Your task to perform on an android device: turn off wifi Image 0: 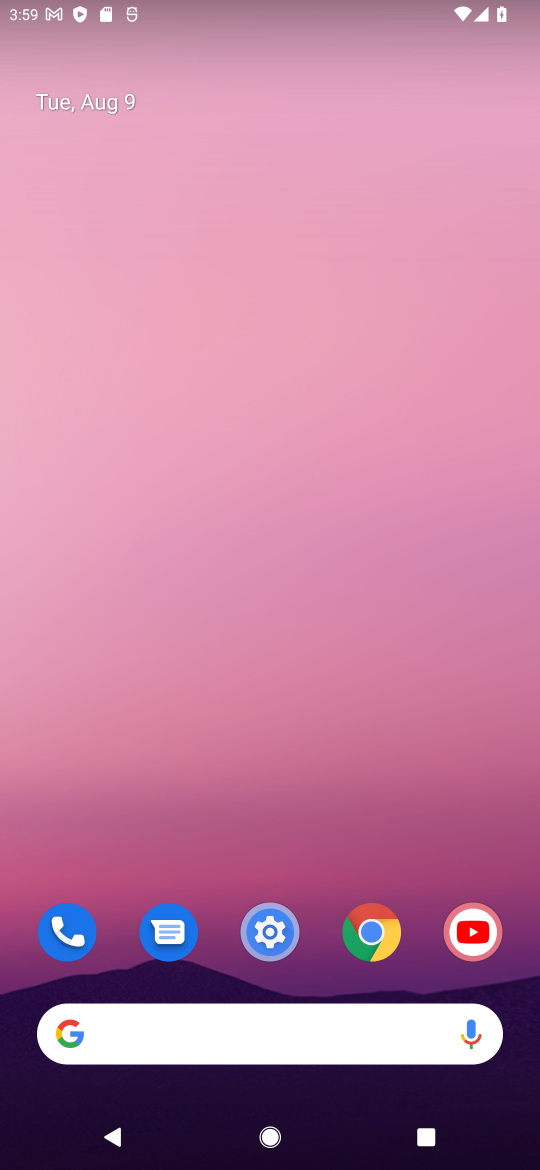
Step 0: drag from (316, 1014) to (407, 70)
Your task to perform on an android device: turn off wifi Image 1: 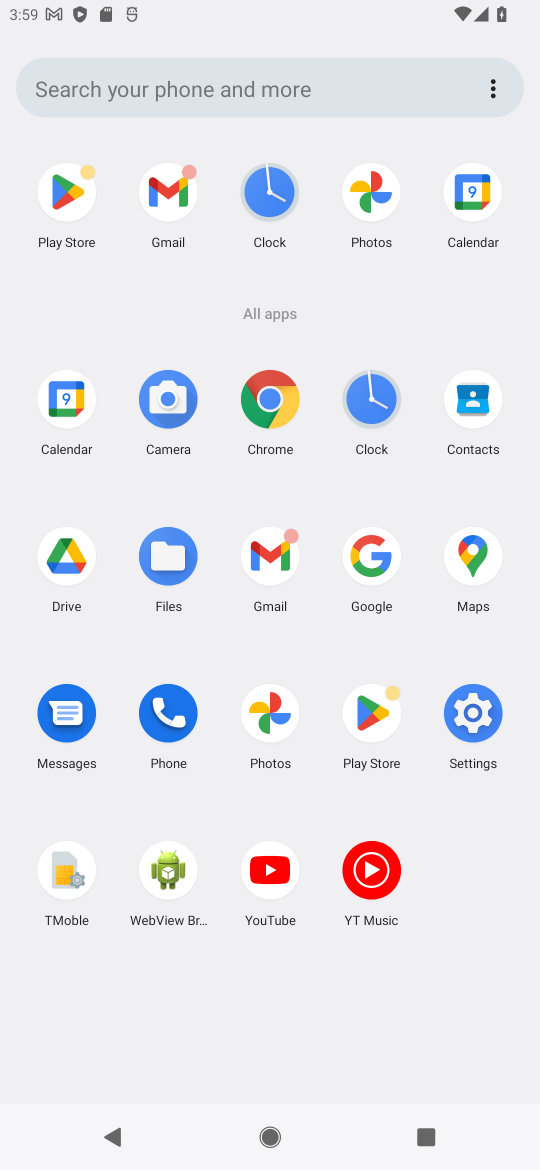
Step 1: click (461, 702)
Your task to perform on an android device: turn off wifi Image 2: 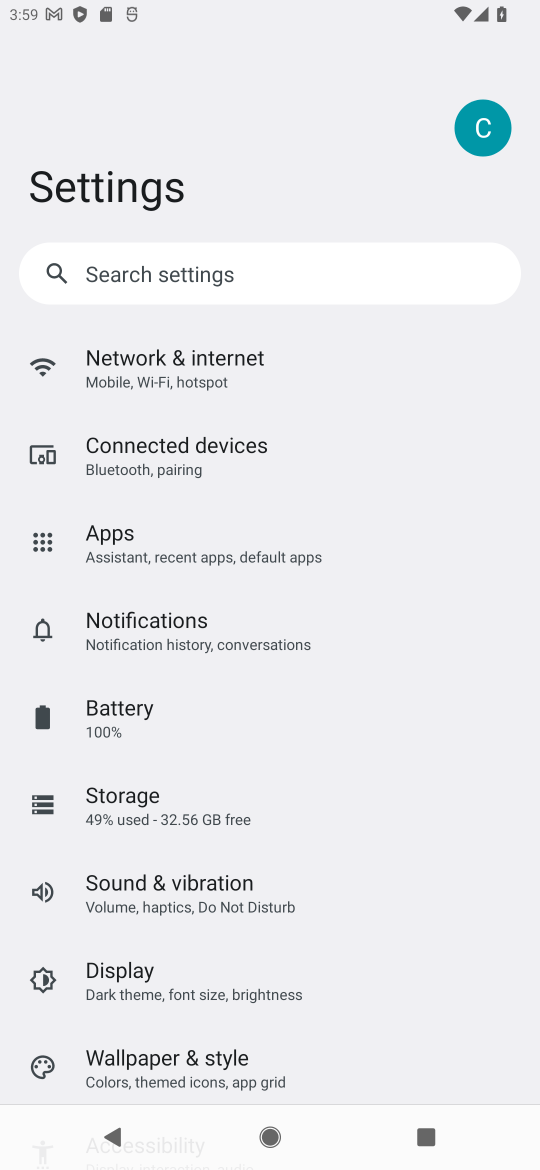
Step 2: click (234, 382)
Your task to perform on an android device: turn off wifi Image 3: 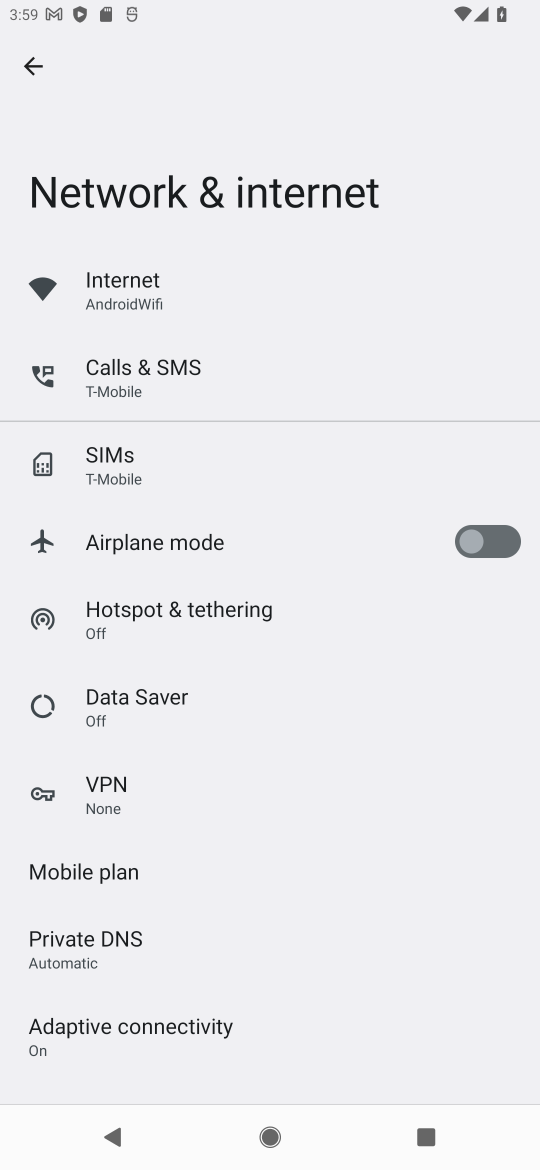
Step 3: click (160, 307)
Your task to perform on an android device: turn off wifi Image 4: 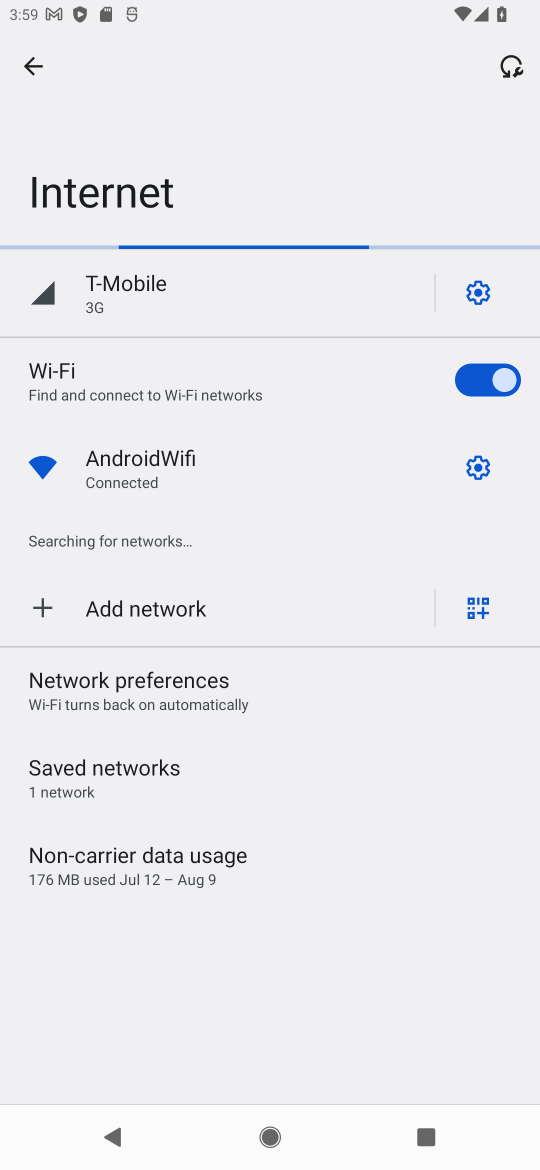
Step 4: click (483, 371)
Your task to perform on an android device: turn off wifi Image 5: 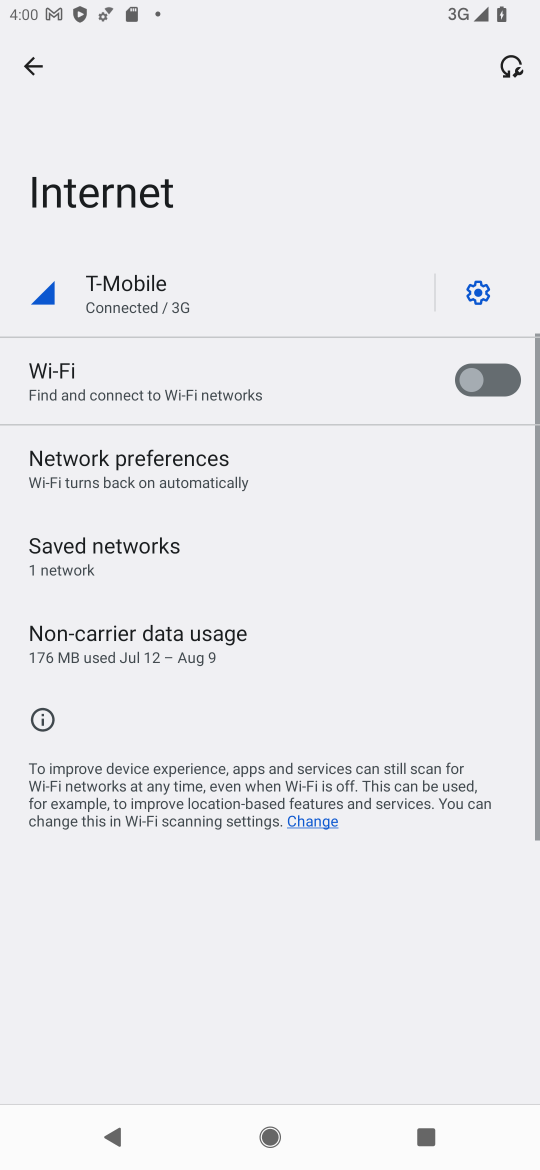
Step 5: task complete